Your task to perform on an android device: Open wifi settings Image 0: 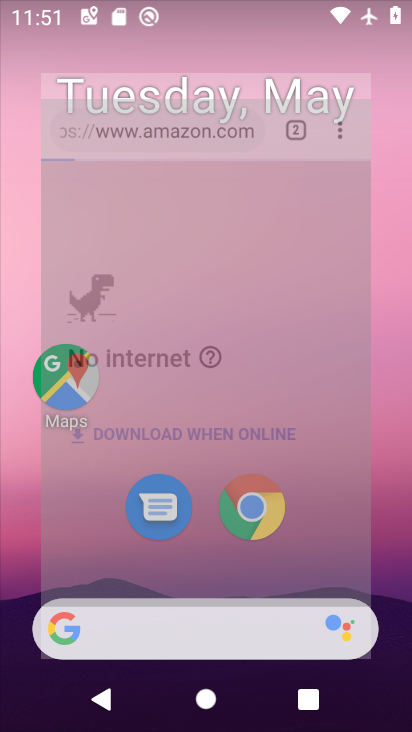
Step 0: drag from (240, 659) to (165, 170)
Your task to perform on an android device: Open wifi settings Image 1: 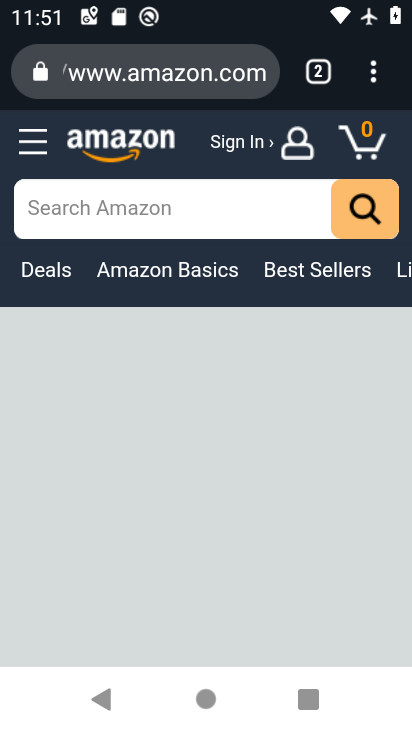
Step 1: press back button
Your task to perform on an android device: Open wifi settings Image 2: 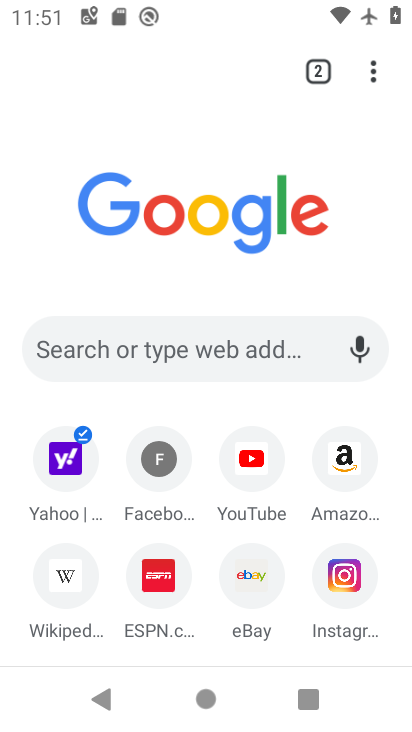
Step 2: press home button
Your task to perform on an android device: Open wifi settings Image 3: 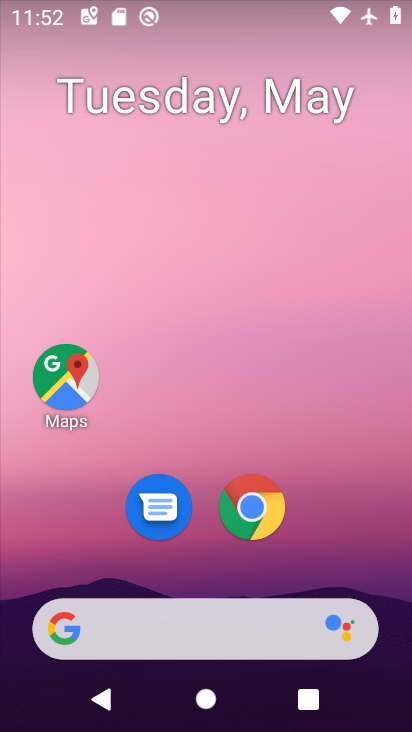
Step 3: drag from (248, 670) to (139, 140)
Your task to perform on an android device: Open wifi settings Image 4: 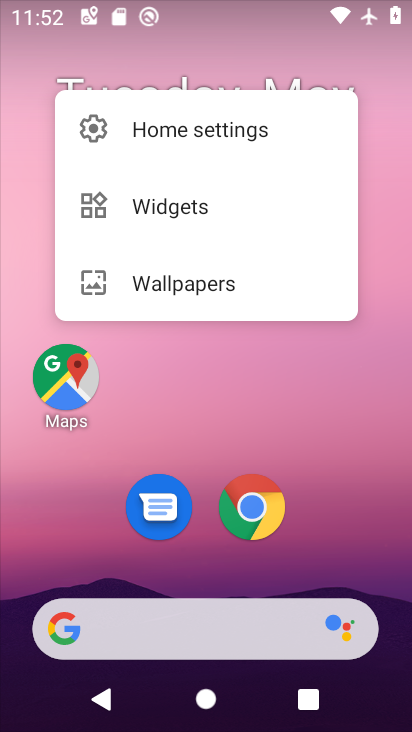
Step 4: drag from (365, 534) to (343, 69)
Your task to perform on an android device: Open wifi settings Image 5: 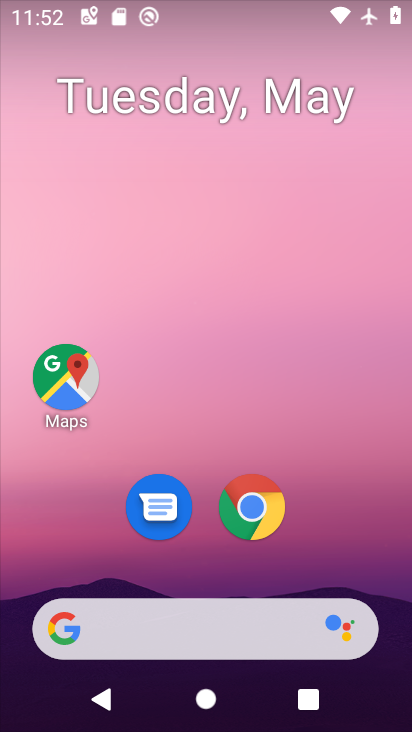
Step 5: press back button
Your task to perform on an android device: Open wifi settings Image 6: 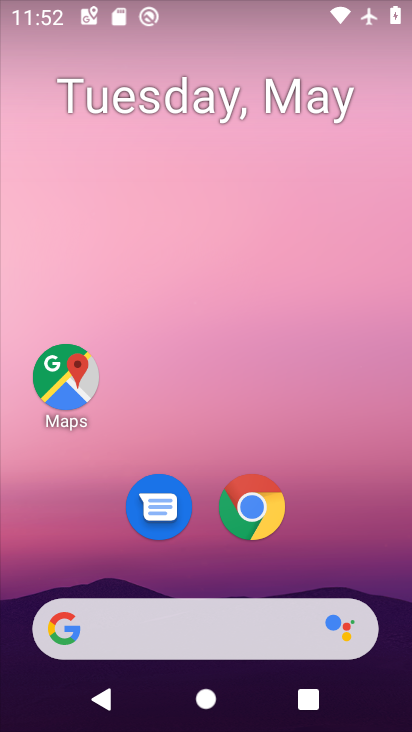
Step 6: drag from (217, 573) to (162, 229)
Your task to perform on an android device: Open wifi settings Image 7: 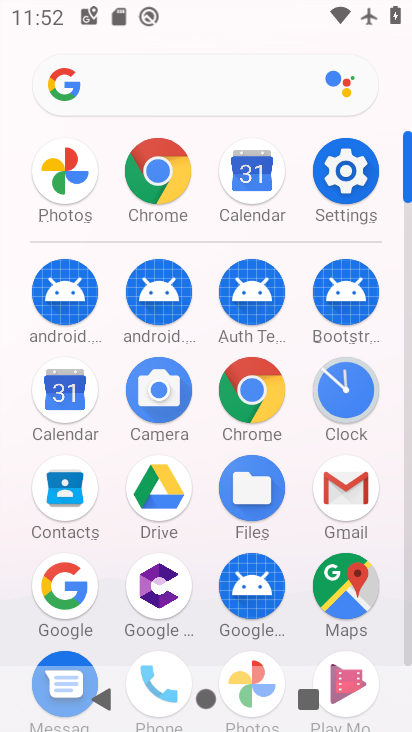
Step 7: click (332, 171)
Your task to perform on an android device: Open wifi settings Image 8: 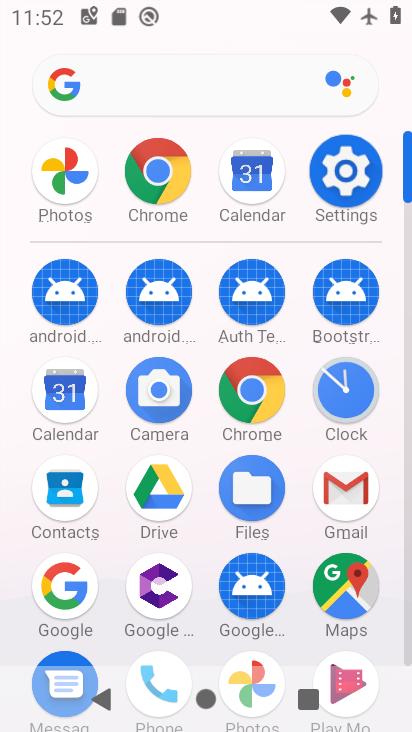
Step 8: click (335, 170)
Your task to perform on an android device: Open wifi settings Image 9: 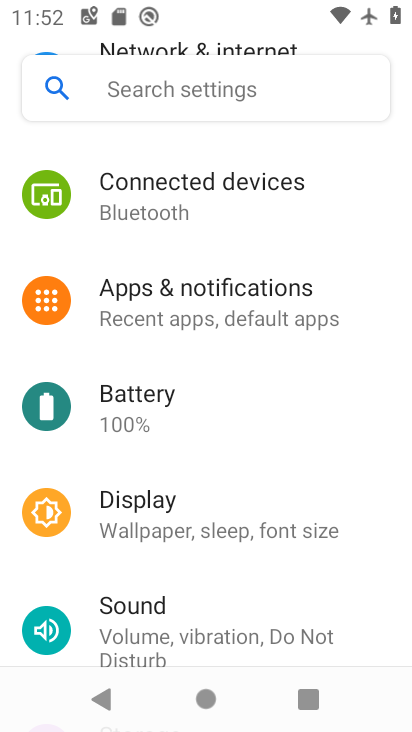
Step 9: drag from (174, 240) to (220, 648)
Your task to perform on an android device: Open wifi settings Image 10: 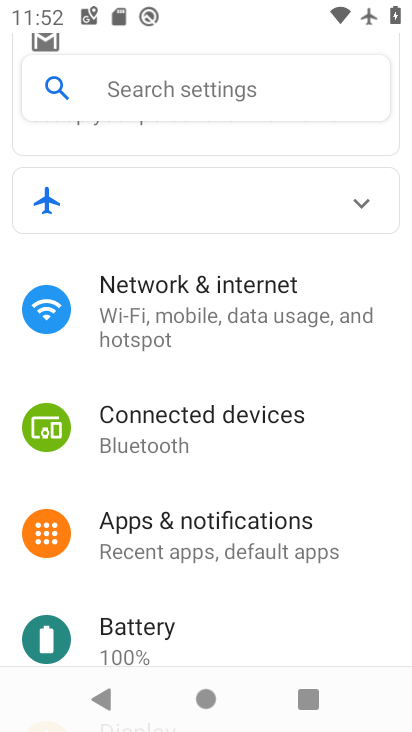
Step 10: drag from (191, 255) to (192, 607)
Your task to perform on an android device: Open wifi settings Image 11: 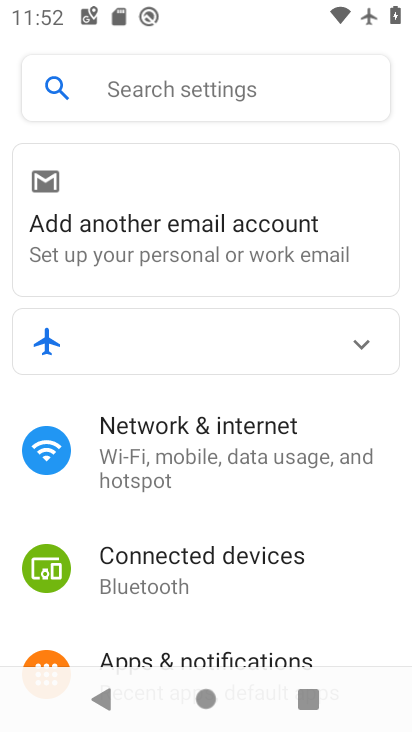
Step 11: click (190, 437)
Your task to perform on an android device: Open wifi settings Image 12: 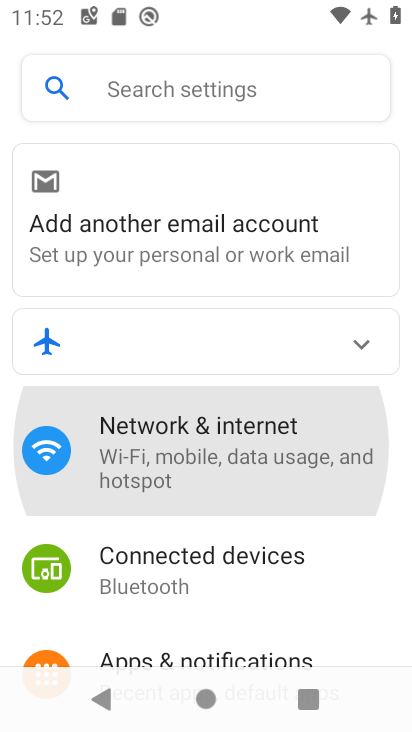
Step 12: click (190, 437)
Your task to perform on an android device: Open wifi settings Image 13: 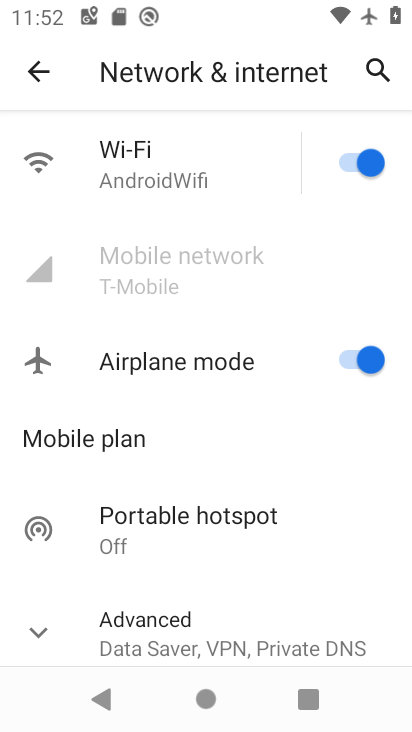
Step 13: task complete